Your task to perform on an android device: Toggle the flashlight Image 0: 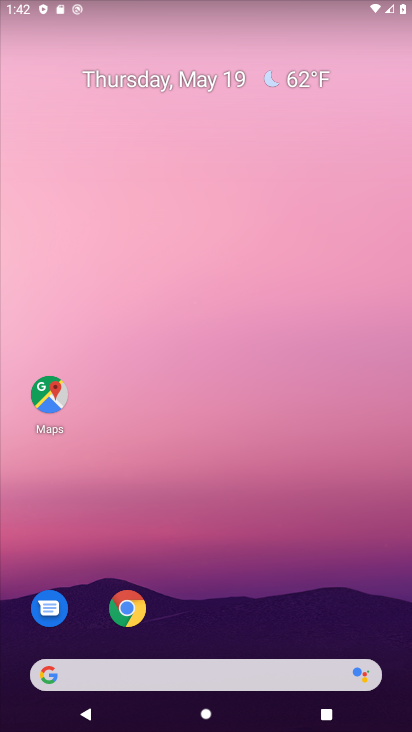
Step 0: drag from (337, 627) to (254, 197)
Your task to perform on an android device: Toggle the flashlight Image 1: 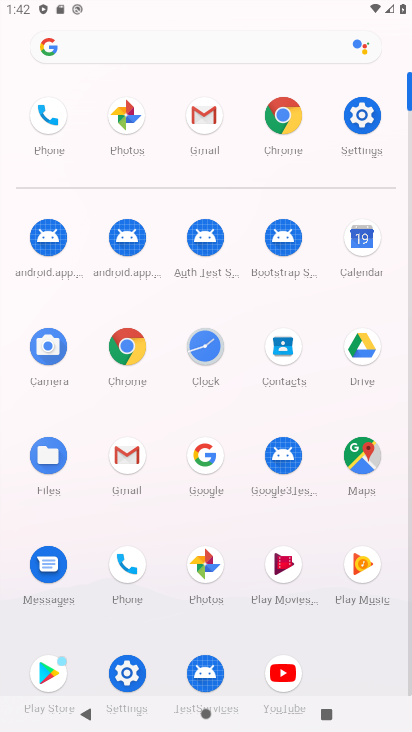
Step 1: click (366, 146)
Your task to perform on an android device: Toggle the flashlight Image 2: 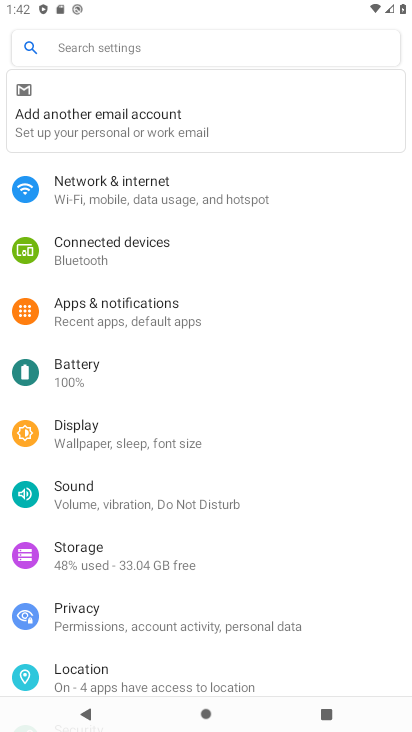
Step 2: click (247, 383)
Your task to perform on an android device: Toggle the flashlight Image 3: 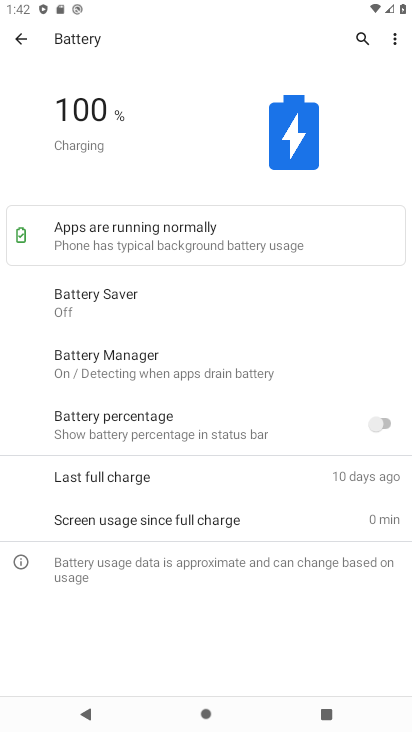
Step 3: task complete